Your task to perform on an android device: see tabs open on other devices in the chrome app Image 0: 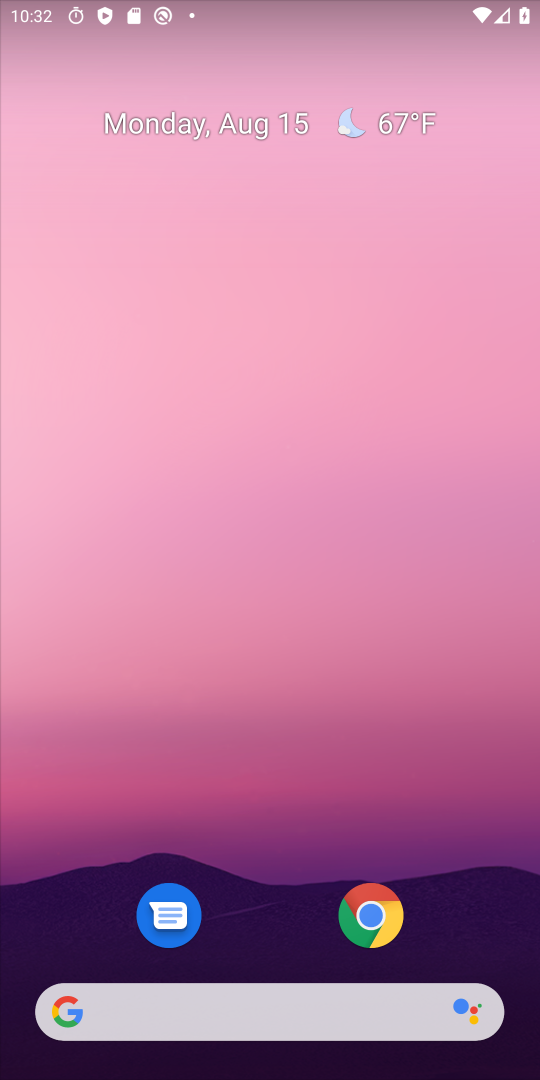
Step 0: click (365, 913)
Your task to perform on an android device: see tabs open on other devices in the chrome app Image 1: 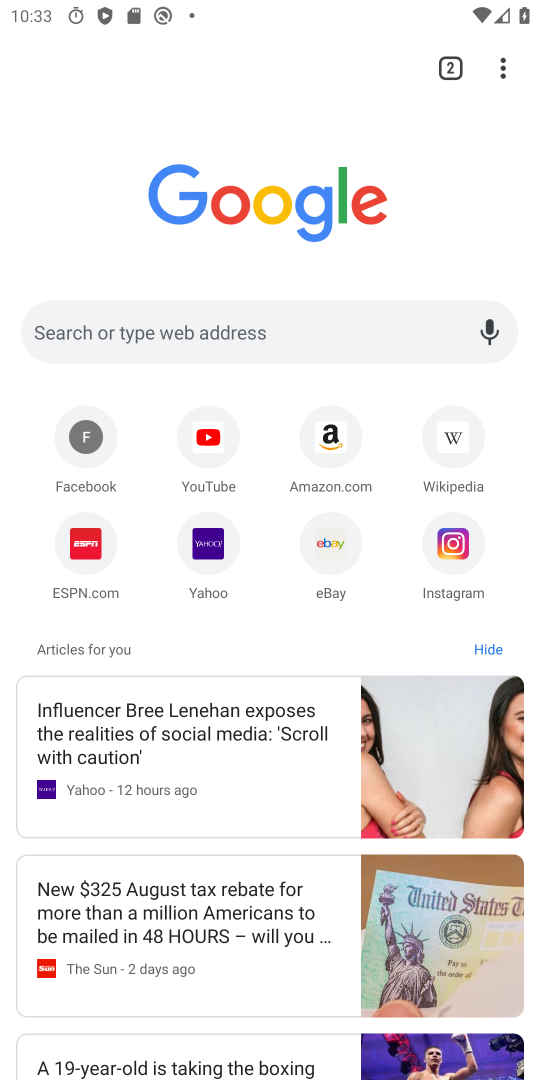
Step 1: click (514, 68)
Your task to perform on an android device: see tabs open on other devices in the chrome app Image 2: 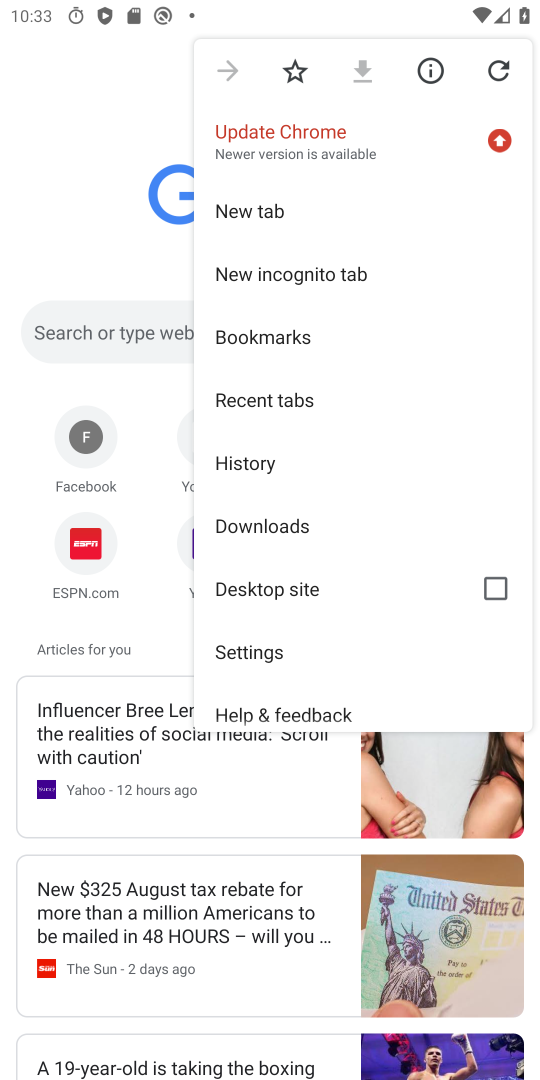
Step 2: click (237, 398)
Your task to perform on an android device: see tabs open on other devices in the chrome app Image 3: 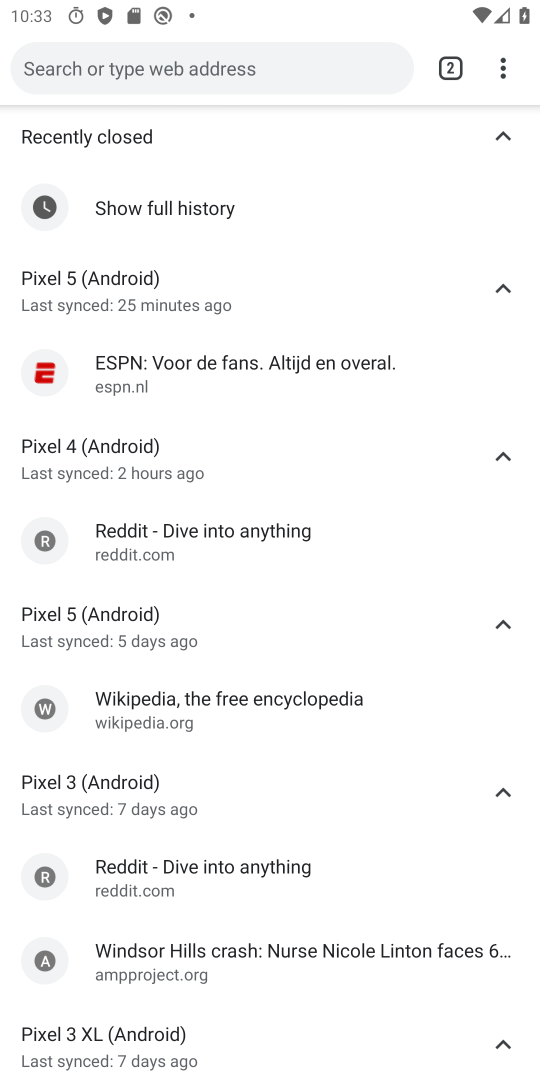
Step 3: task complete